Your task to perform on an android device: Go to accessibility settings Image 0: 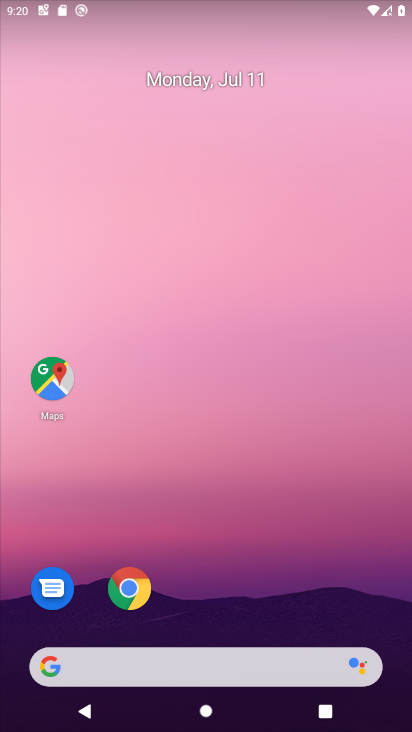
Step 0: drag from (245, 605) to (236, 191)
Your task to perform on an android device: Go to accessibility settings Image 1: 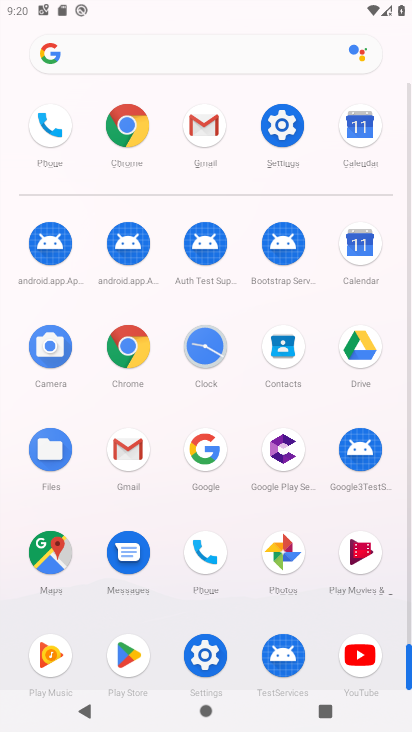
Step 1: click (283, 130)
Your task to perform on an android device: Go to accessibility settings Image 2: 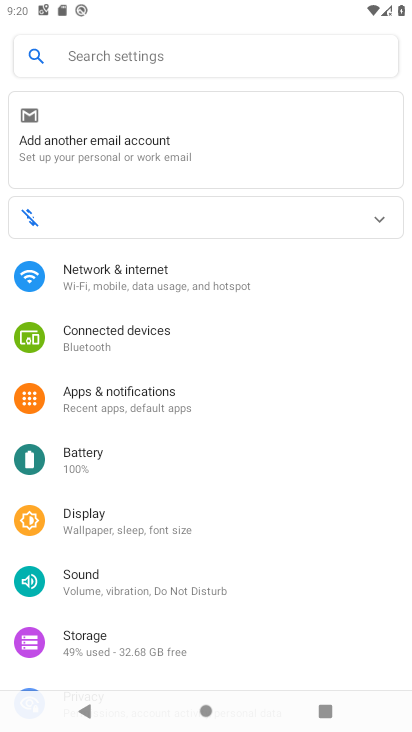
Step 2: drag from (172, 565) to (181, 237)
Your task to perform on an android device: Go to accessibility settings Image 3: 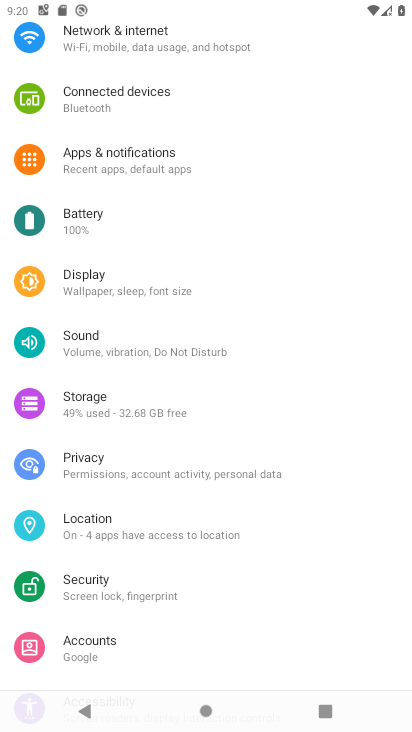
Step 3: drag from (129, 585) to (132, 248)
Your task to perform on an android device: Go to accessibility settings Image 4: 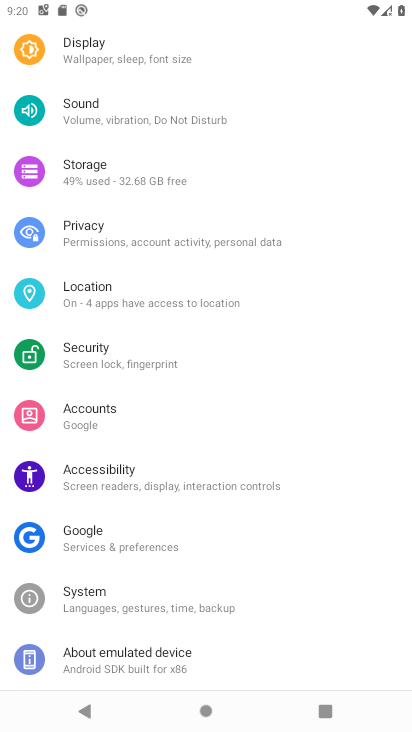
Step 4: click (124, 465)
Your task to perform on an android device: Go to accessibility settings Image 5: 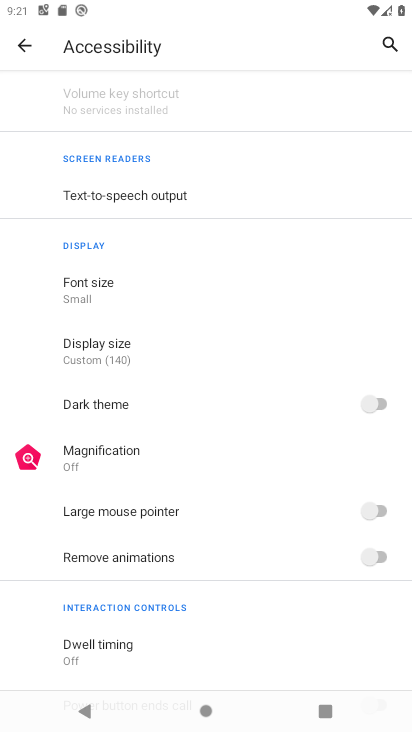
Step 5: task complete